Your task to perform on an android device: see creations saved in the google photos Image 0: 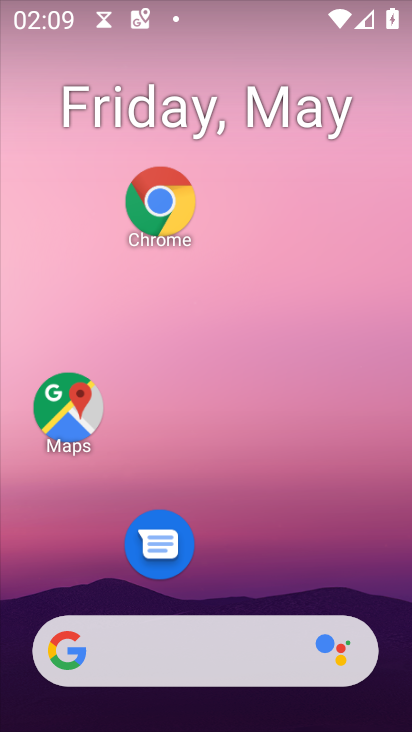
Step 0: drag from (272, 577) to (275, 252)
Your task to perform on an android device: see creations saved in the google photos Image 1: 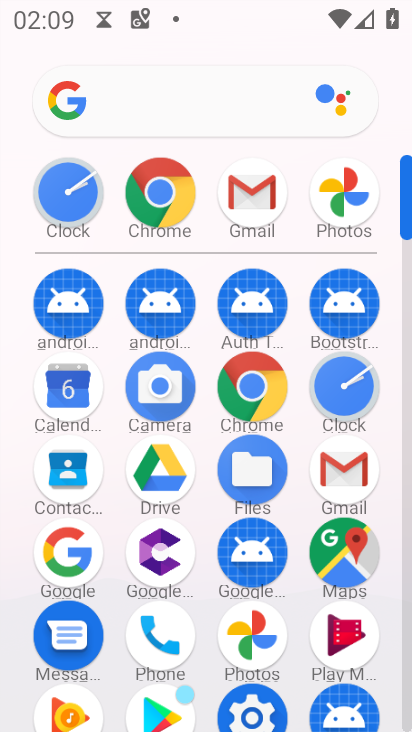
Step 1: drag from (211, 275) to (208, 73)
Your task to perform on an android device: see creations saved in the google photos Image 2: 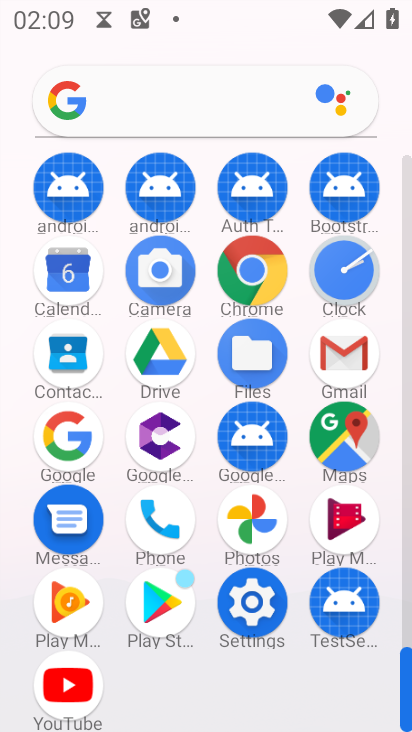
Step 2: click (262, 521)
Your task to perform on an android device: see creations saved in the google photos Image 3: 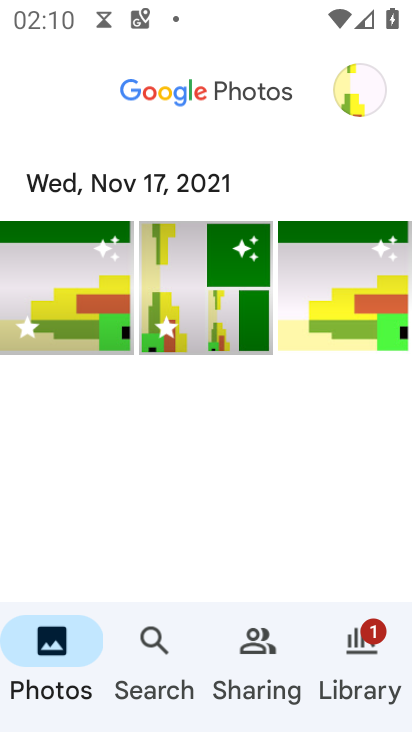
Step 3: click (361, 110)
Your task to perform on an android device: see creations saved in the google photos Image 4: 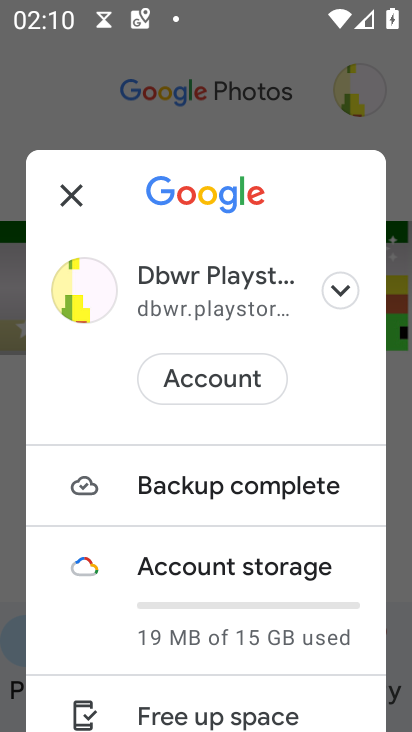
Step 4: drag from (246, 562) to (213, 184)
Your task to perform on an android device: see creations saved in the google photos Image 5: 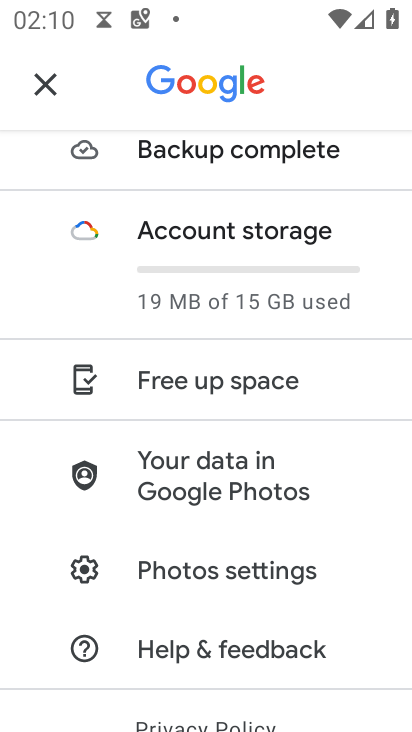
Step 5: drag from (166, 438) to (157, 203)
Your task to perform on an android device: see creations saved in the google photos Image 6: 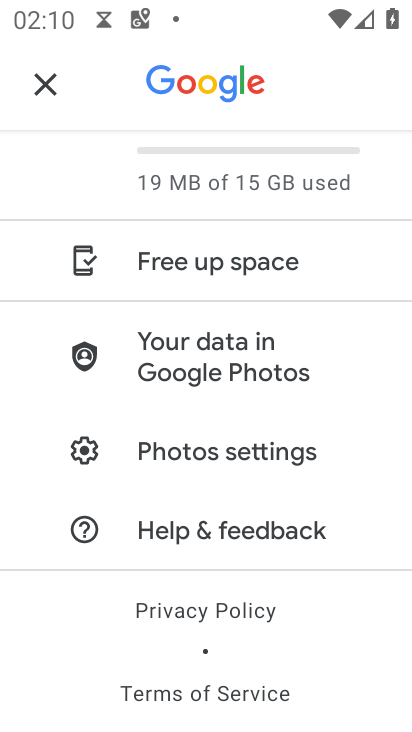
Step 6: click (46, 88)
Your task to perform on an android device: see creations saved in the google photos Image 7: 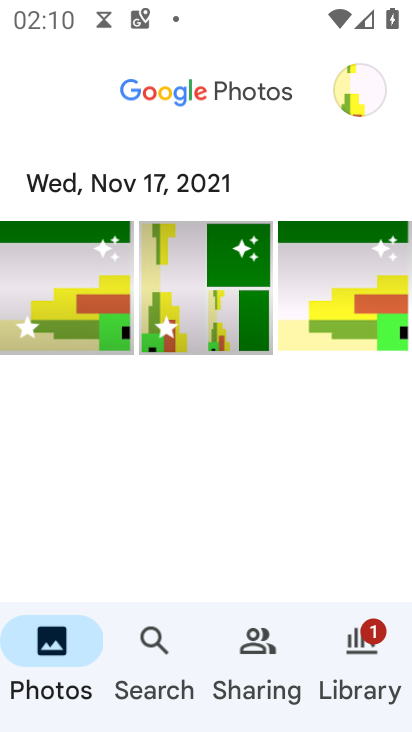
Step 7: click (376, 661)
Your task to perform on an android device: see creations saved in the google photos Image 8: 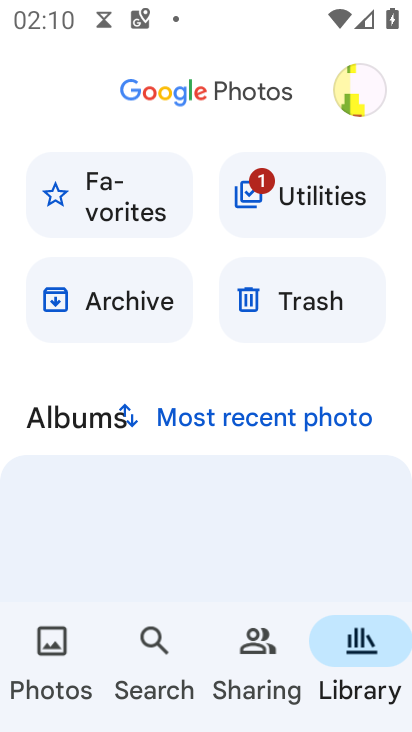
Step 8: drag from (166, 510) to (167, 130)
Your task to perform on an android device: see creations saved in the google photos Image 9: 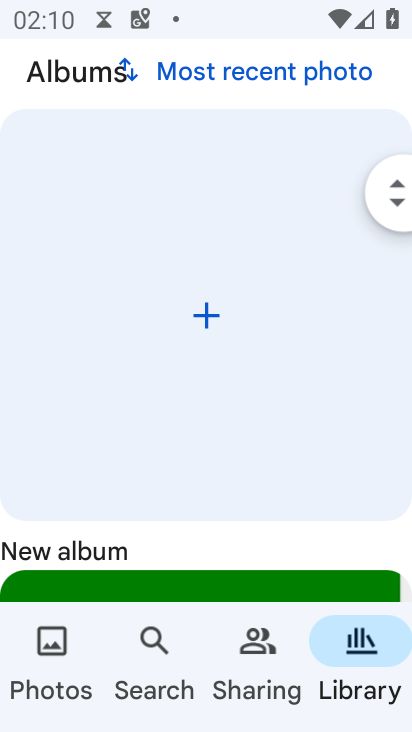
Step 9: drag from (200, 207) to (222, 639)
Your task to perform on an android device: see creations saved in the google photos Image 10: 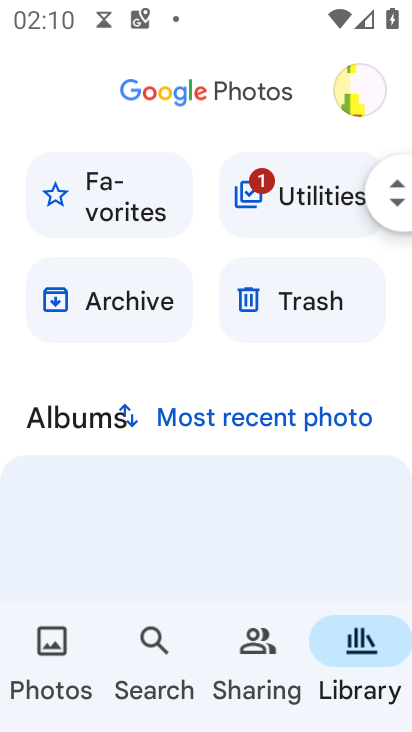
Step 10: click (157, 655)
Your task to perform on an android device: see creations saved in the google photos Image 11: 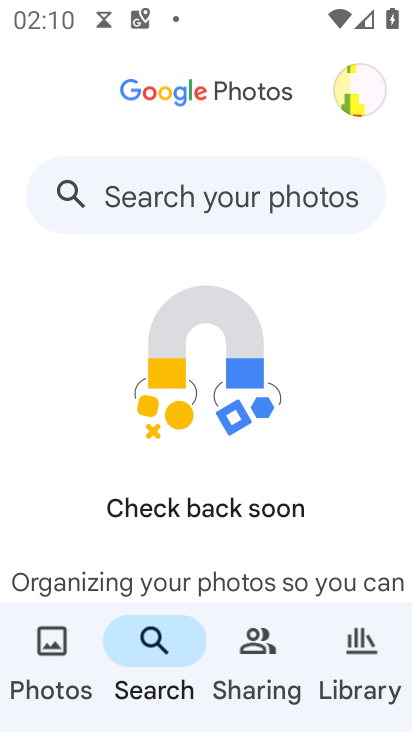
Step 11: click (193, 191)
Your task to perform on an android device: see creations saved in the google photos Image 12: 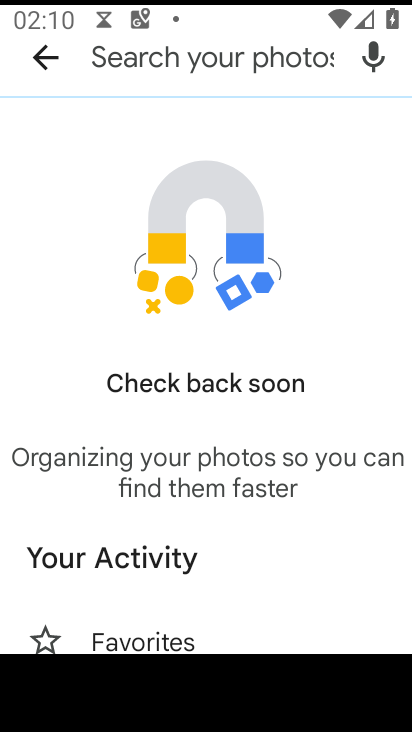
Step 12: drag from (229, 533) to (229, 183)
Your task to perform on an android device: see creations saved in the google photos Image 13: 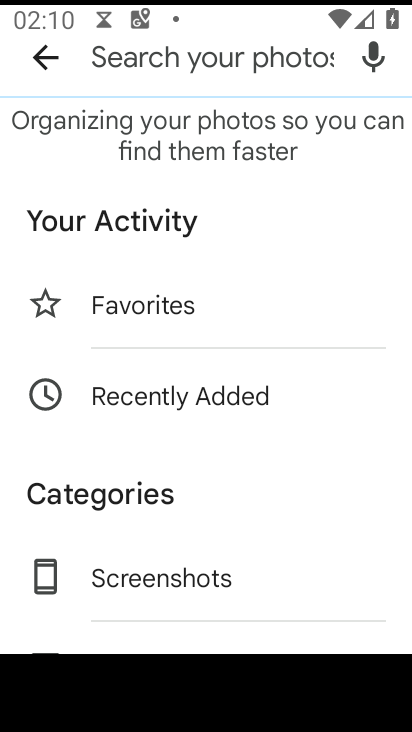
Step 13: drag from (180, 559) to (160, 360)
Your task to perform on an android device: see creations saved in the google photos Image 14: 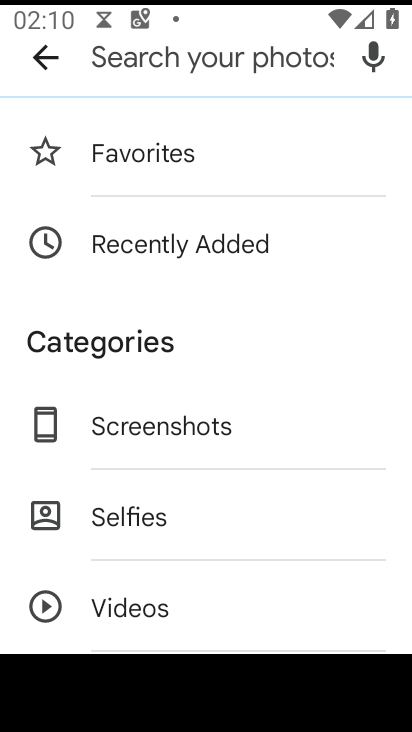
Step 14: drag from (225, 590) to (188, 189)
Your task to perform on an android device: see creations saved in the google photos Image 15: 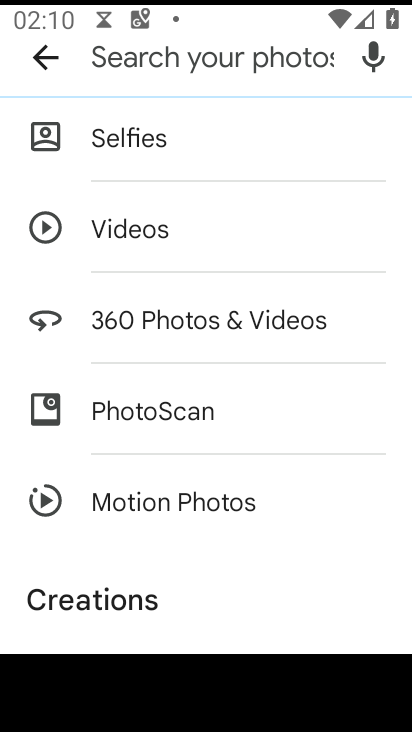
Step 15: drag from (218, 527) to (197, 265)
Your task to perform on an android device: see creations saved in the google photos Image 16: 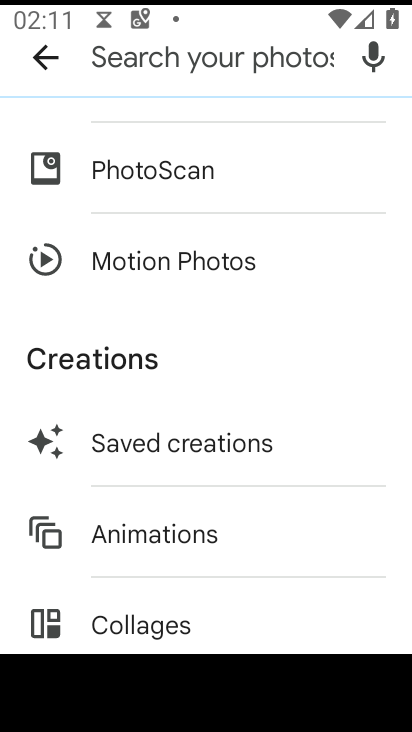
Step 16: click (202, 450)
Your task to perform on an android device: see creations saved in the google photos Image 17: 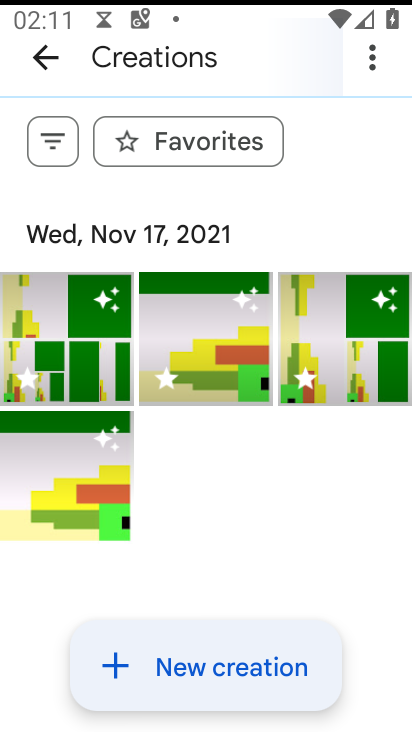
Step 17: task complete